Your task to perform on an android device: Open Android settings Image 0: 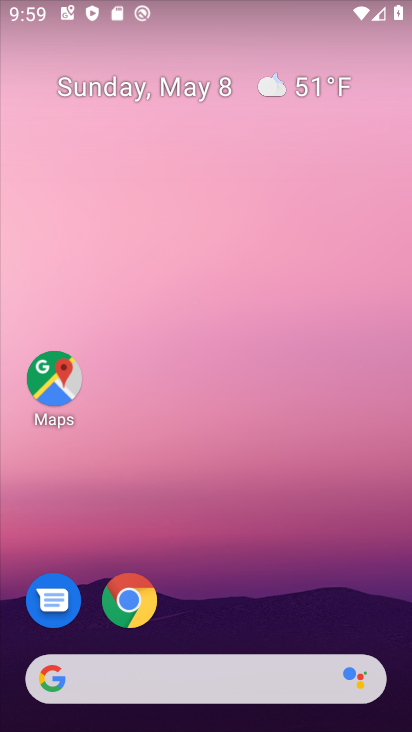
Step 0: drag from (290, 599) to (176, 0)
Your task to perform on an android device: Open Android settings Image 1: 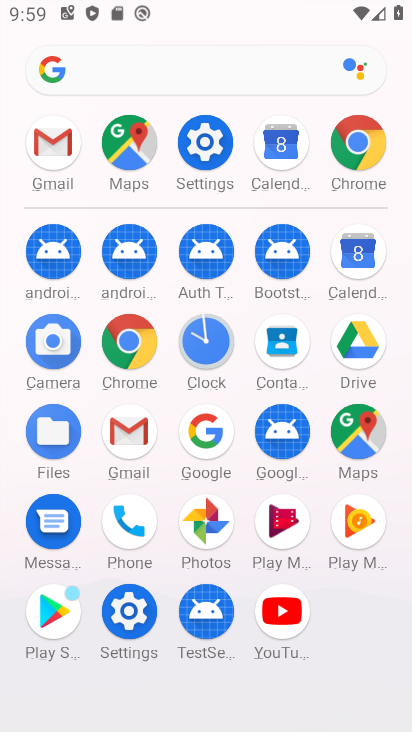
Step 1: click (203, 137)
Your task to perform on an android device: Open Android settings Image 2: 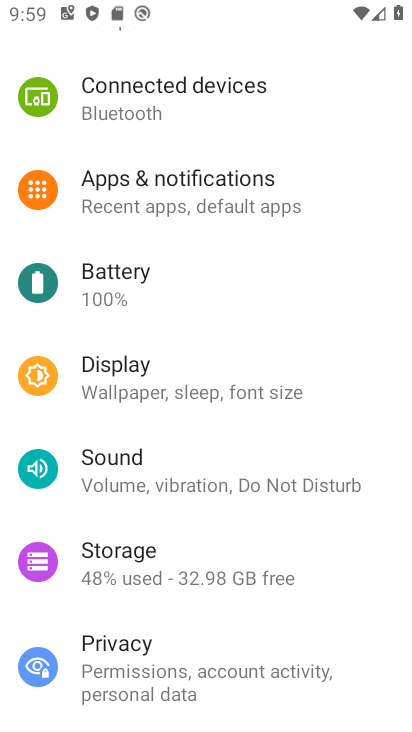
Step 2: task complete